Your task to perform on an android device: What's on my calendar tomorrow? Image 0: 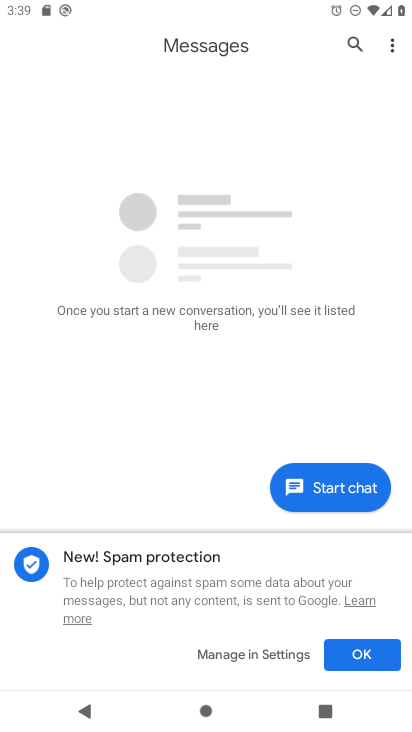
Step 0: press home button
Your task to perform on an android device: What's on my calendar tomorrow? Image 1: 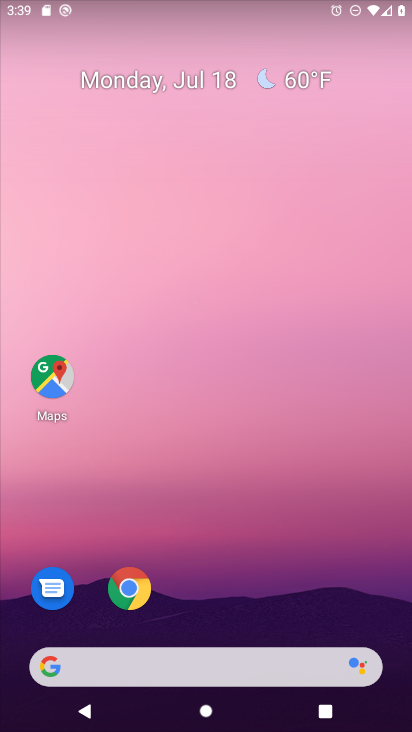
Step 1: drag from (212, 609) to (222, 75)
Your task to perform on an android device: What's on my calendar tomorrow? Image 2: 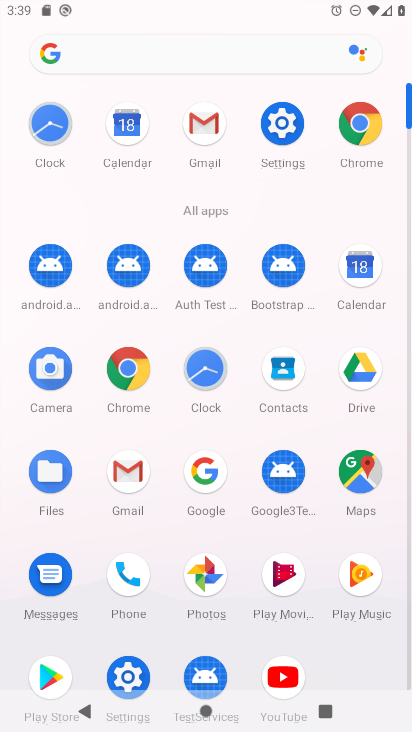
Step 2: click (364, 266)
Your task to perform on an android device: What's on my calendar tomorrow? Image 3: 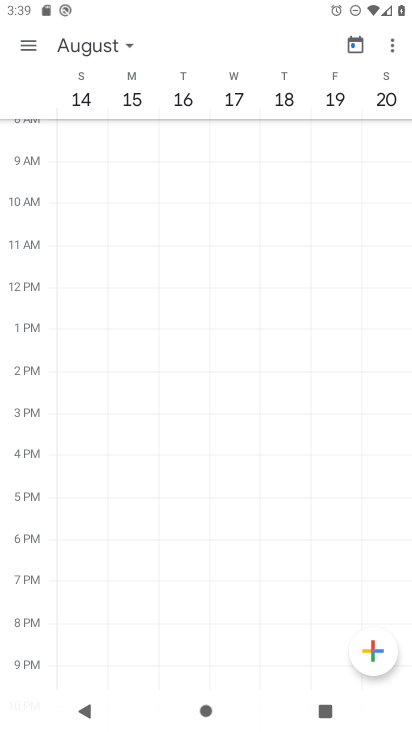
Step 3: click (31, 42)
Your task to perform on an android device: What's on my calendar tomorrow? Image 4: 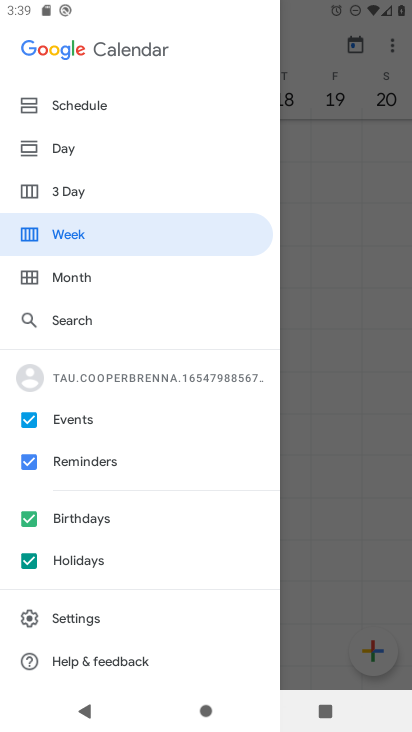
Step 4: click (65, 153)
Your task to perform on an android device: What's on my calendar tomorrow? Image 5: 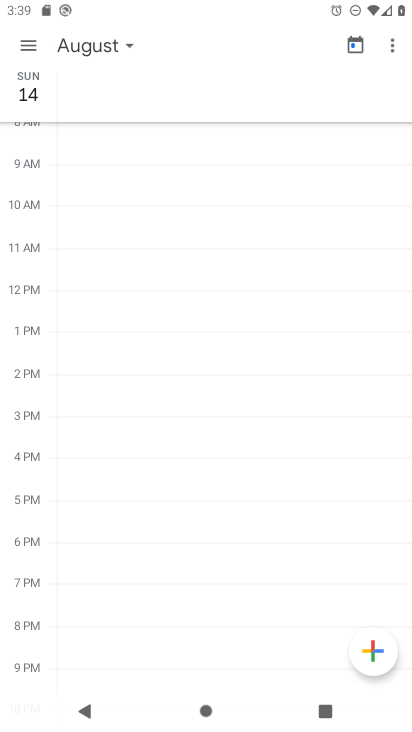
Step 5: click (110, 34)
Your task to perform on an android device: What's on my calendar tomorrow? Image 6: 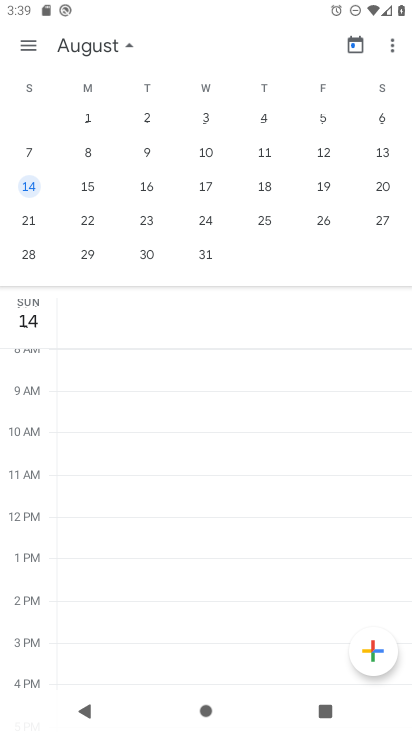
Step 6: drag from (38, 175) to (356, 204)
Your task to perform on an android device: What's on my calendar tomorrow? Image 7: 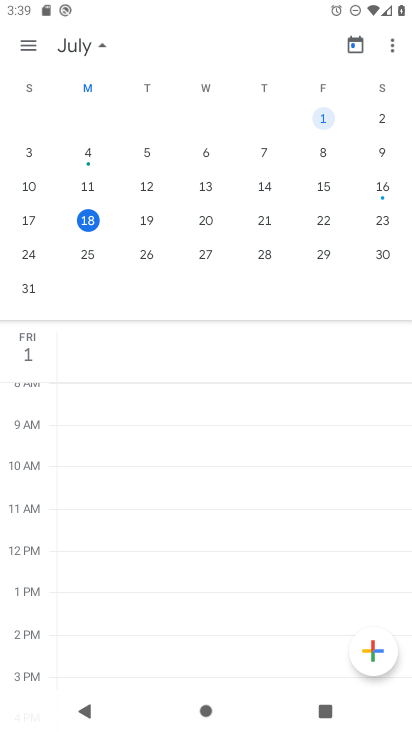
Step 7: click (89, 218)
Your task to perform on an android device: What's on my calendar tomorrow? Image 8: 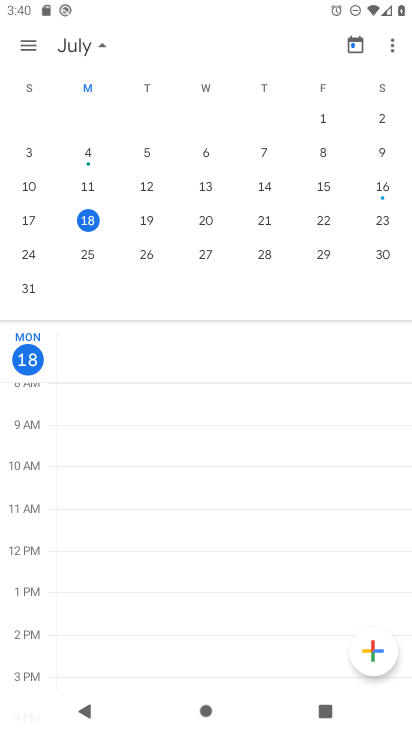
Step 8: click (142, 215)
Your task to perform on an android device: What's on my calendar tomorrow? Image 9: 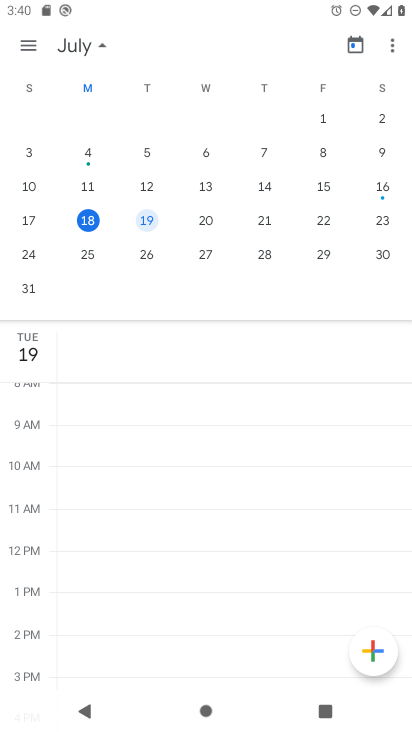
Step 9: click (93, 50)
Your task to perform on an android device: What's on my calendar tomorrow? Image 10: 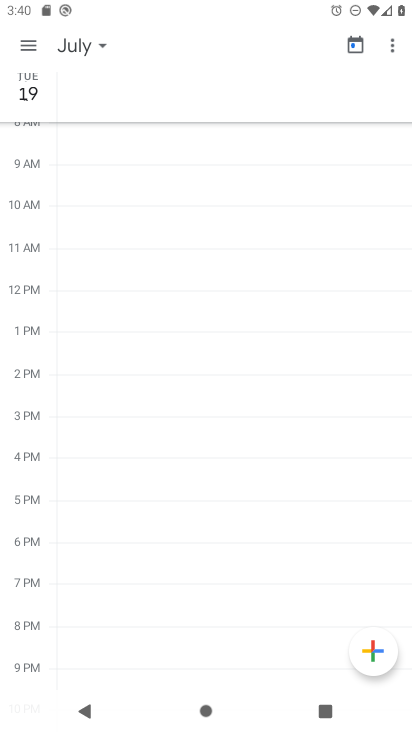
Step 10: task complete